Your task to perform on an android device: Open the stopwatch Image 0: 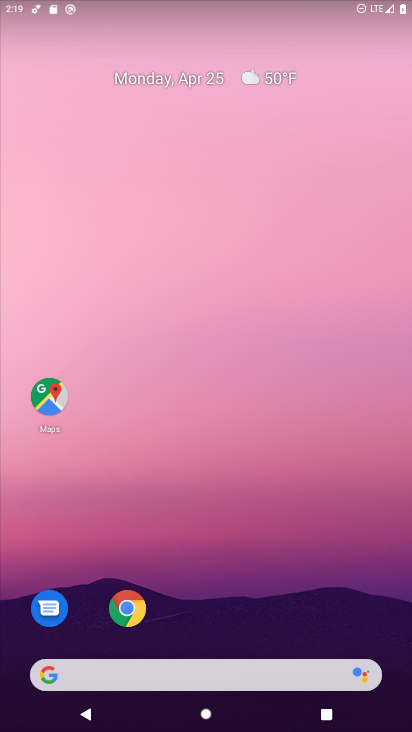
Step 0: drag from (272, 616) to (203, 134)
Your task to perform on an android device: Open the stopwatch Image 1: 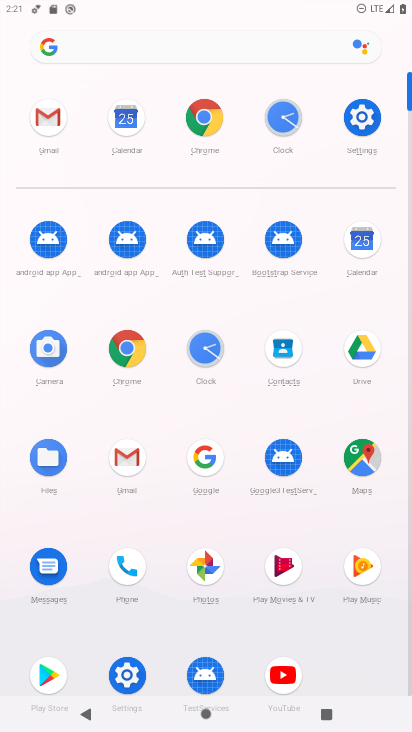
Step 1: click (199, 355)
Your task to perform on an android device: Open the stopwatch Image 2: 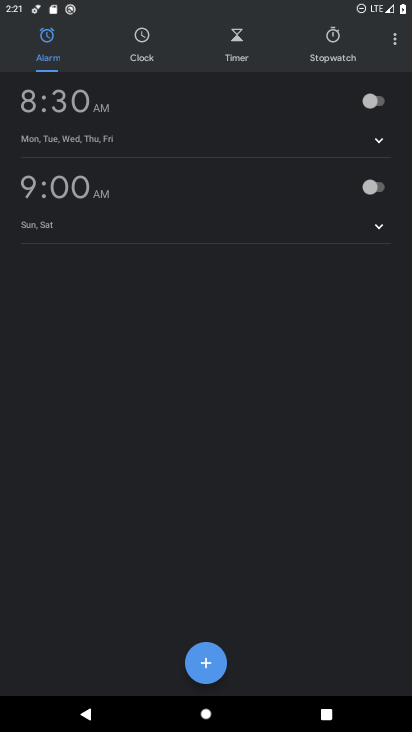
Step 2: click (327, 40)
Your task to perform on an android device: Open the stopwatch Image 3: 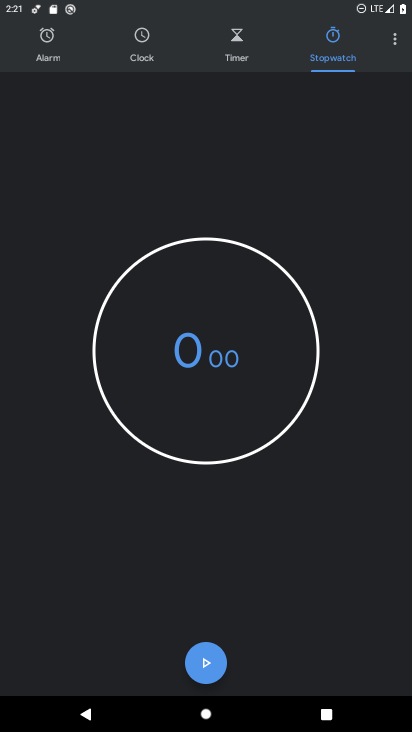
Step 3: task complete